Your task to perform on an android device: change the upload size in google photos Image 0: 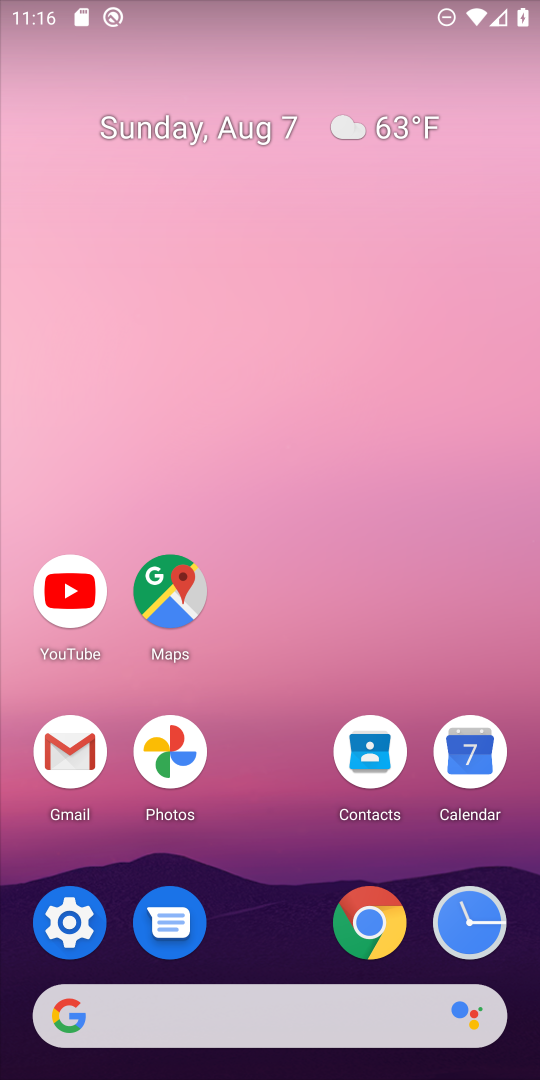
Step 0: click (164, 752)
Your task to perform on an android device: change the upload size in google photos Image 1: 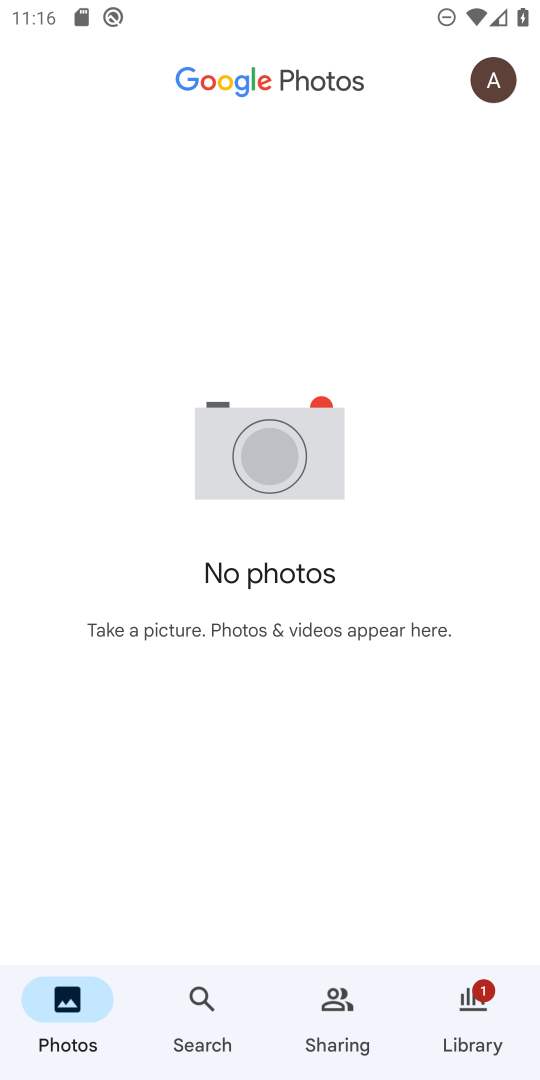
Step 1: click (508, 82)
Your task to perform on an android device: change the upload size in google photos Image 2: 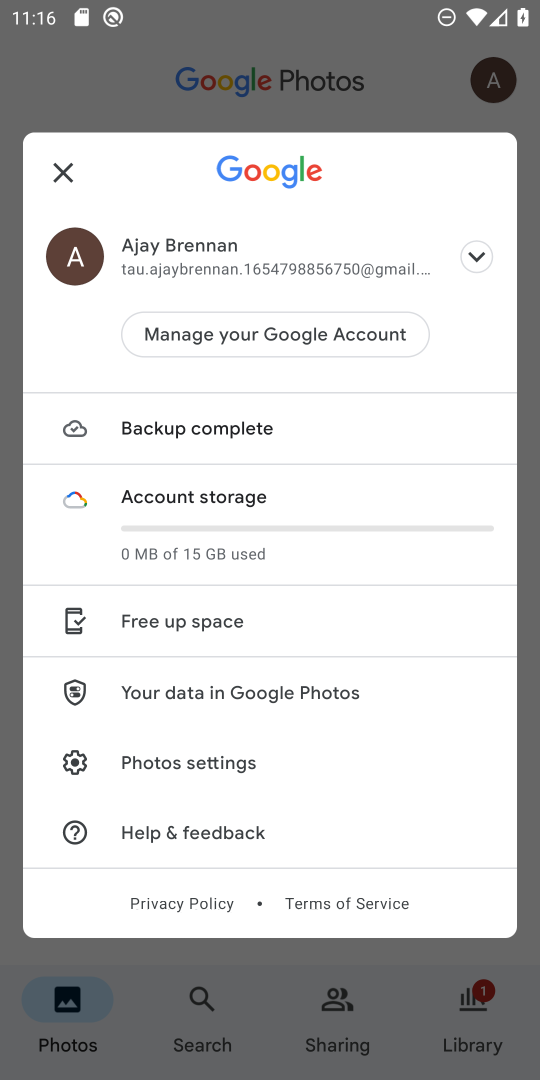
Step 2: click (479, 1012)
Your task to perform on an android device: change the upload size in google photos Image 3: 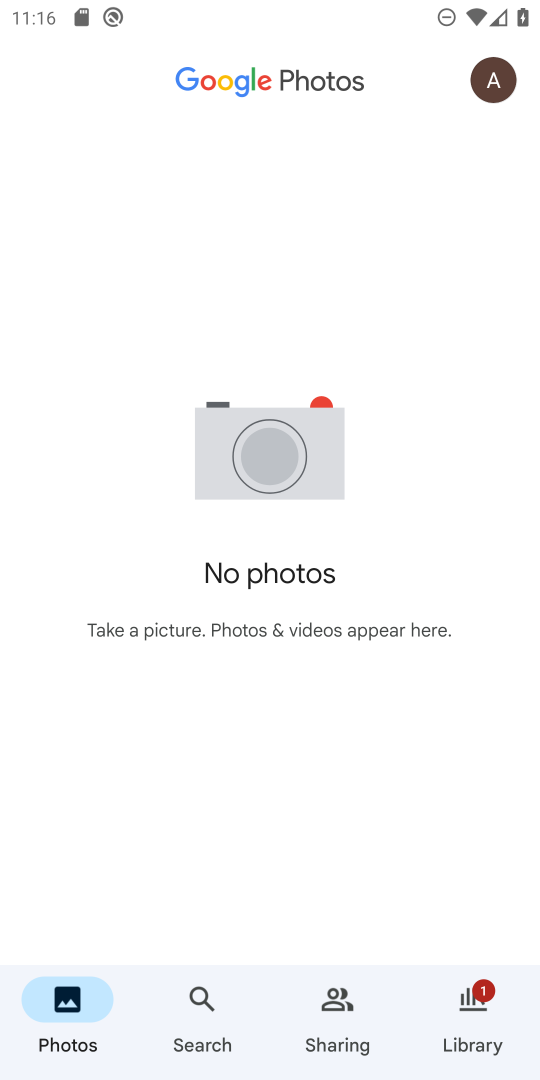
Step 3: click (502, 64)
Your task to perform on an android device: change the upload size in google photos Image 4: 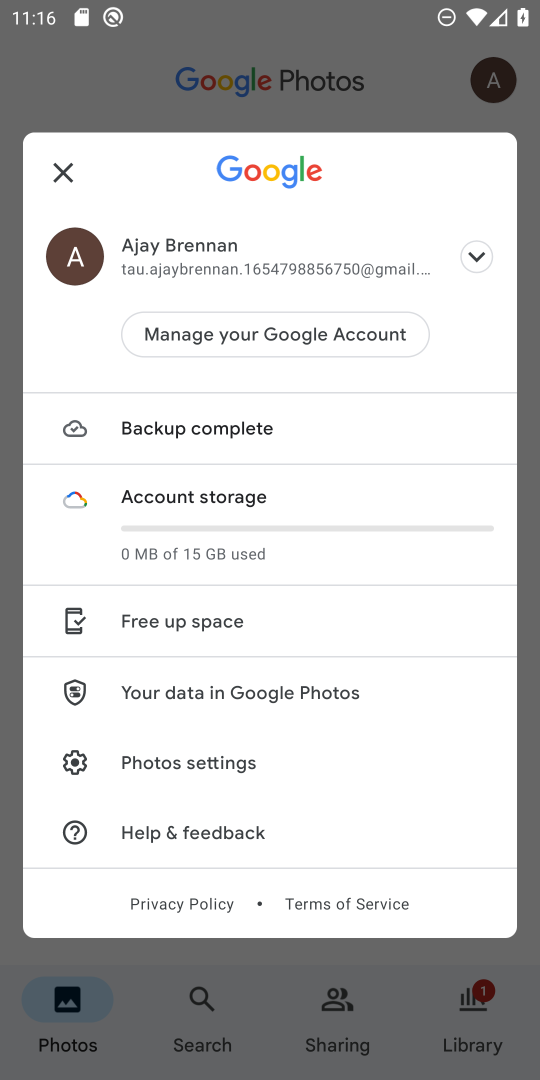
Step 4: click (181, 755)
Your task to perform on an android device: change the upload size in google photos Image 5: 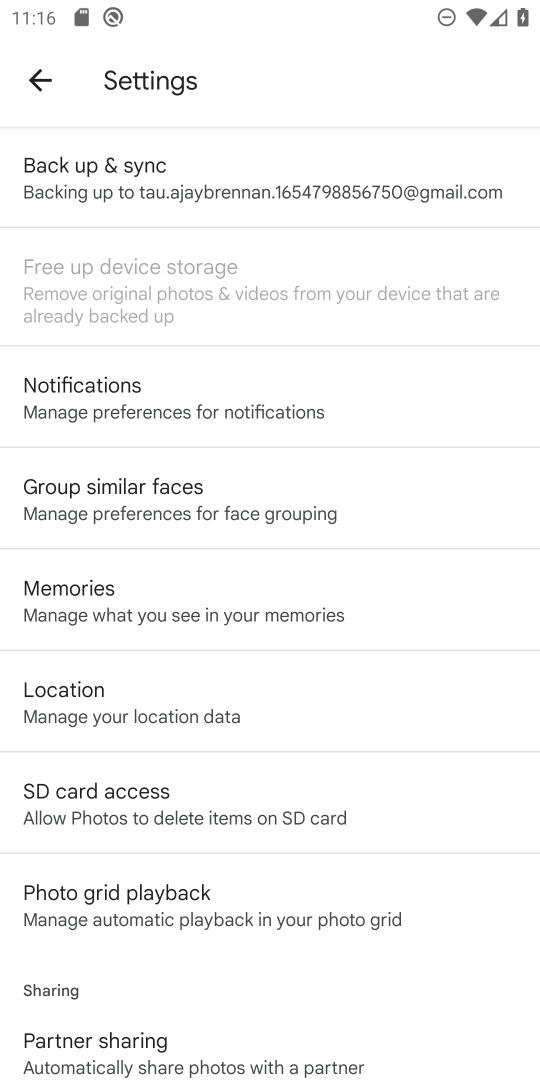
Step 5: click (139, 163)
Your task to perform on an android device: change the upload size in google photos Image 6: 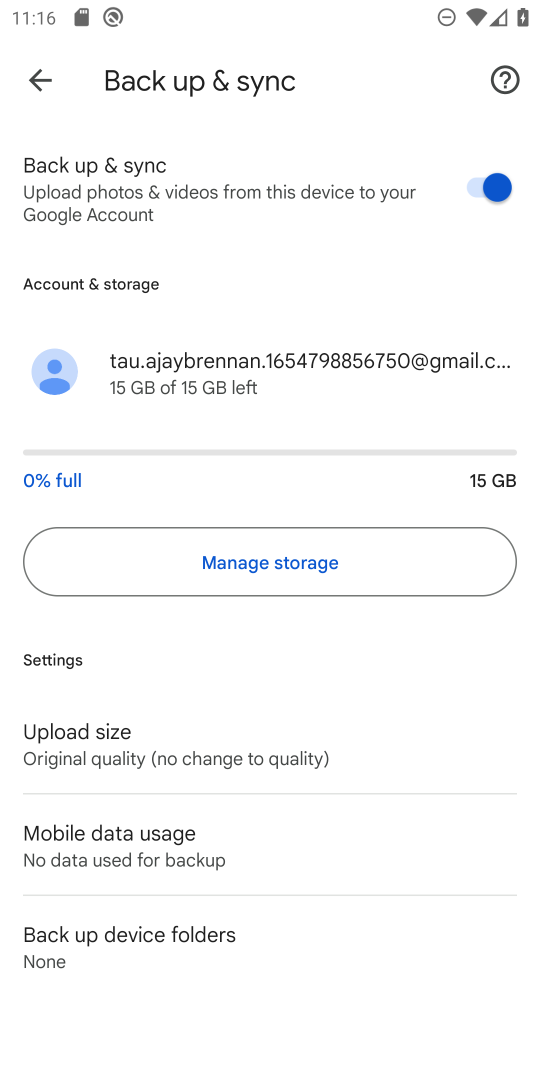
Step 6: click (93, 741)
Your task to perform on an android device: change the upload size in google photos Image 7: 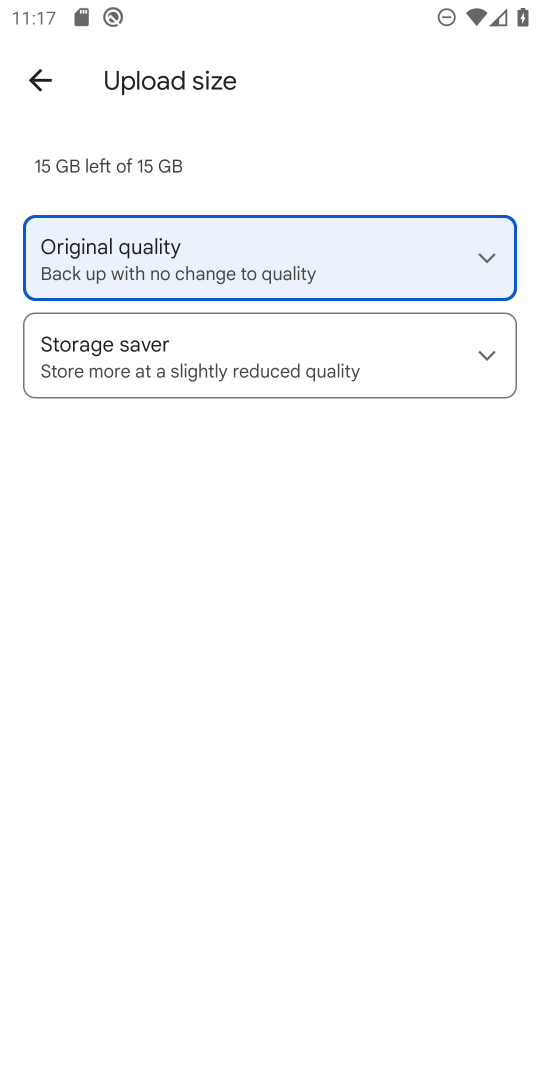
Step 7: click (480, 240)
Your task to perform on an android device: change the upload size in google photos Image 8: 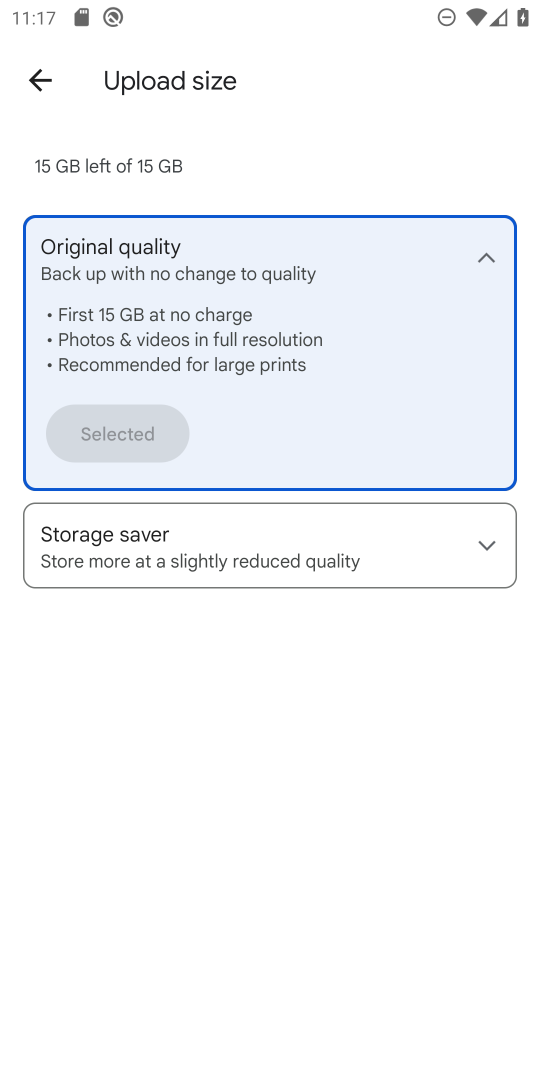
Step 8: task complete